Your task to perform on an android device: Open sound settings Image 0: 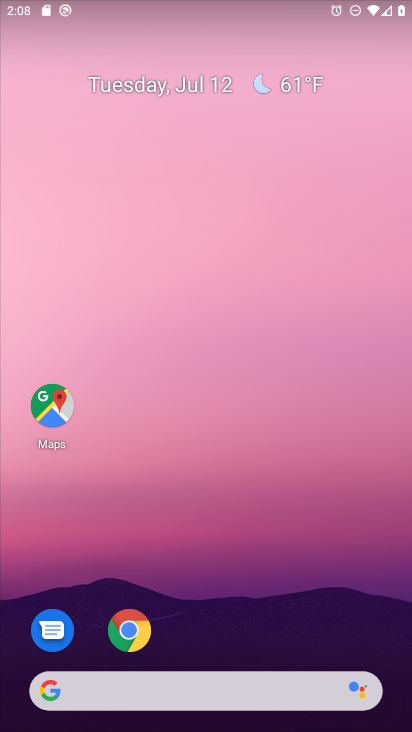
Step 0: drag from (209, 655) to (191, 237)
Your task to perform on an android device: Open sound settings Image 1: 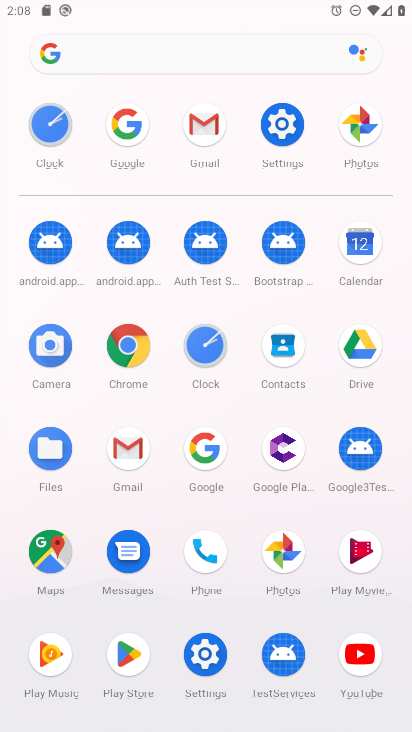
Step 1: click (300, 138)
Your task to perform on an android device: Open sound settings Image 2: 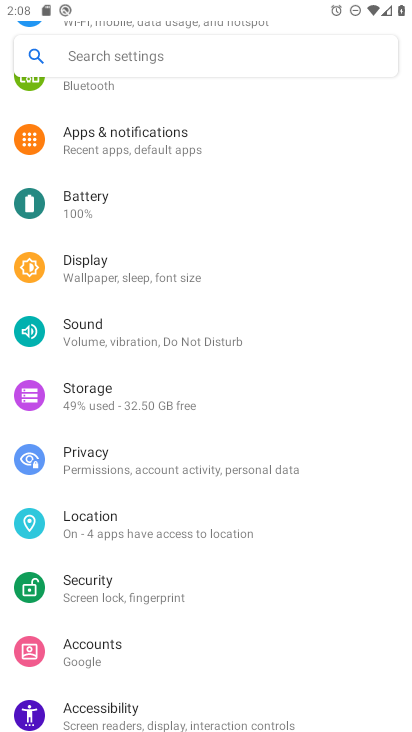
Step 2: click (185, 320)
Your task to perform on an android device: Open sound settings Image 3: 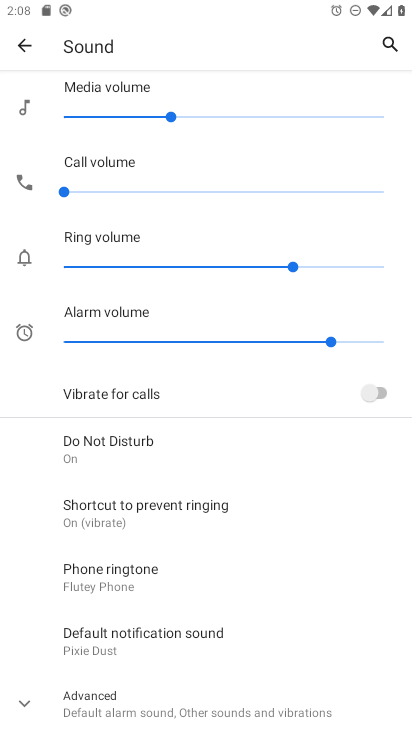
Step 3: task complete